Your task to perform on an android device: Open Google Chrome and open the bookmarks view Image 0: 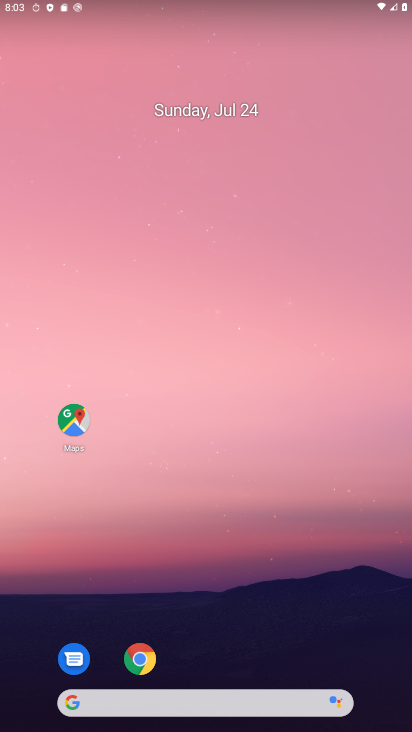
Step 0: drag from (343, 698) to (249, 254)
Your task to perform on an android device: Open Google Chrome and open the bookmarks view Image 1: 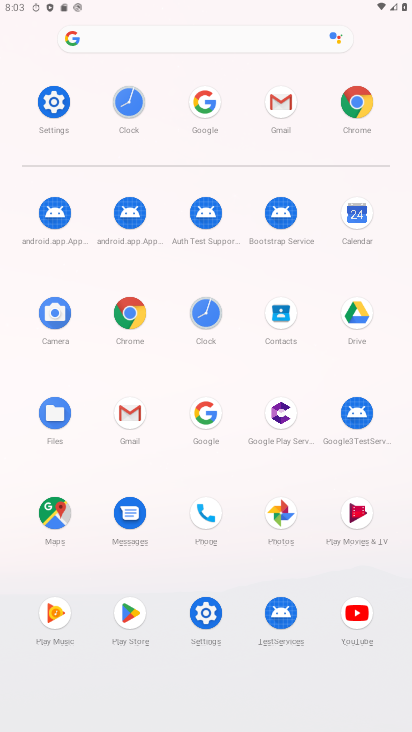
Step 1: click (128, 312)
Your task to perform on an android device: Open Google Chrome and open the bookmarks view Image 2: 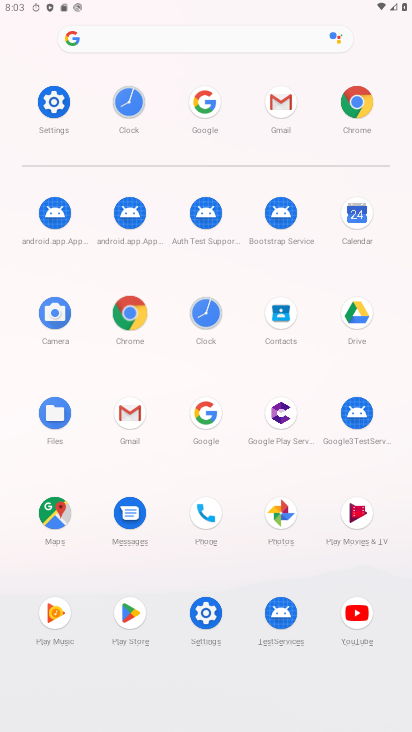
Step 2: click (130, 319)
Your task to perform on an android device: Open Google Chrome and open the bookmarks view Image 3: 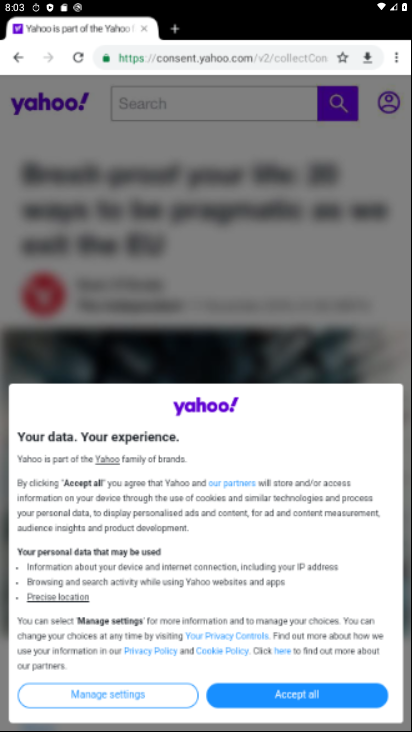
Step 3: click (128, 322)
Your task to perform on an android device: Open Google Chrome and open the bookmarks view Image 4: 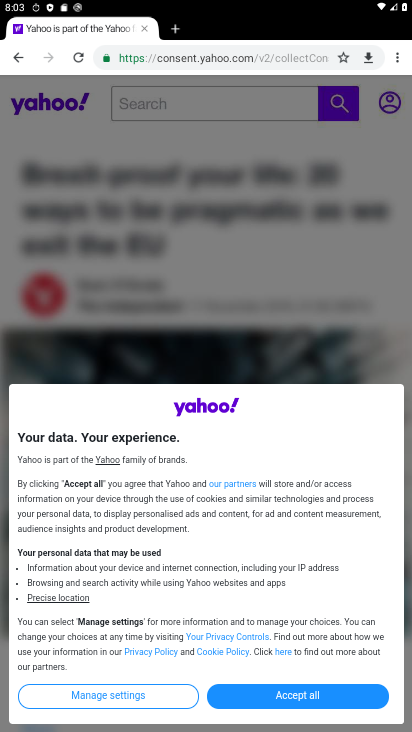
Step 4: drag from (395, 58) to (275, 112)
Your task to perform on an android device: Open Google Chrome and open the bookmarks view Image 5: 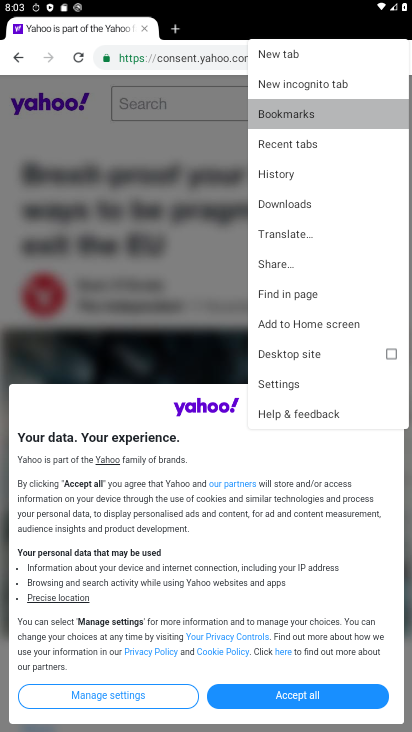
Step 5: click (262, 116)
Your task to perform on an android device: Open Google Chrome and open the bookmarks view Image 6: 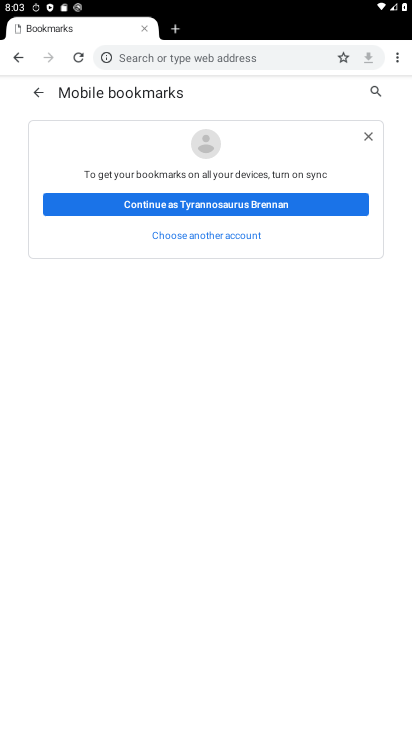
Step 6: click (363, 141)
Your task to perform on an android device: Open Google Chrome and open the bookmarks view Image 7: 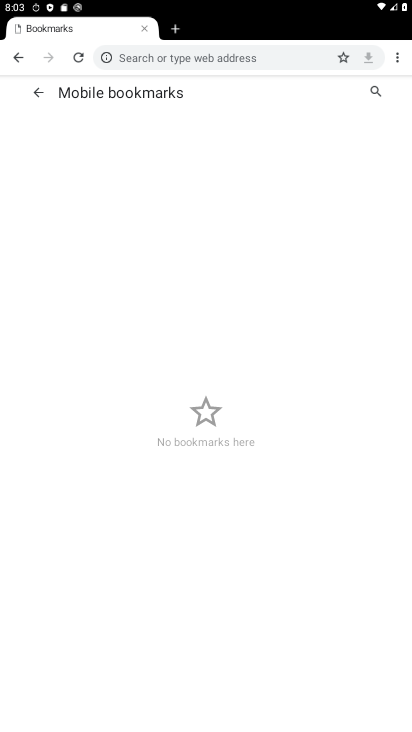
Step 7: task complete